Your task to perform on an android device: Search for Italian restaurants on Maps Image 0: 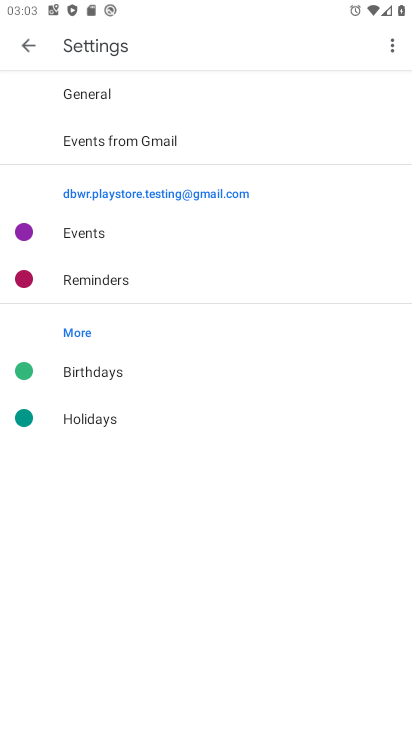
Step 0: press back button
Your task to perform on an android device: Search for Italian restaurants on Maps Image 1: 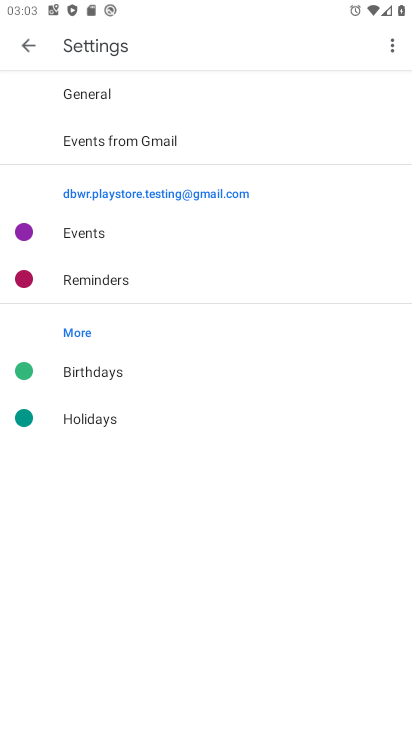
Step 1: press back button
Your task to perform on an android device: Search for Italian restaurants on Maps Image 2: 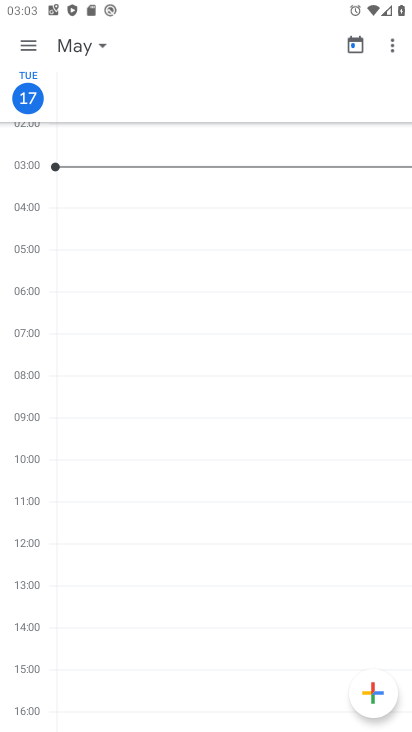
Step 2: press back button
Your task to perform on an android device: Search for Italian restaurants on Maps Image 3: 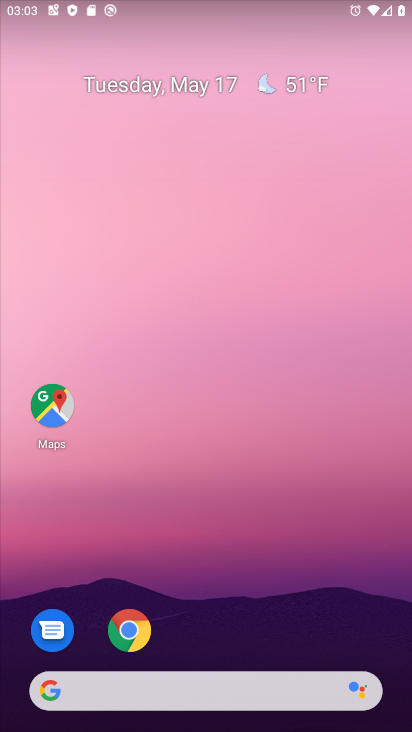
Step 3: click (42, 416)
Your task to perform on an android device: Search for Italian restaurants on Maps Image 4: 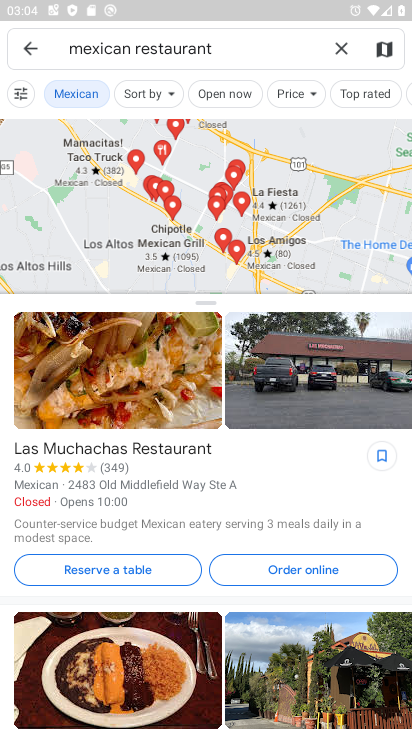
Step 4: click (350, 48)
Your task to perform on an android device: Search for Italian restaurants on Maps Image 5: 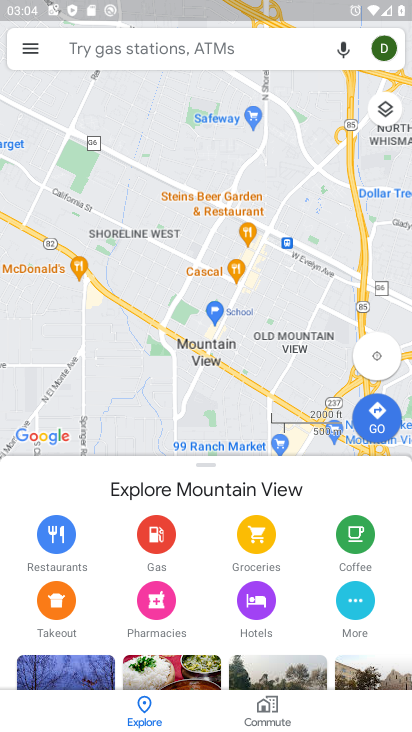
Step 5: click (94, 61)
Your task to perform on an android device: Search for Italian restaurants on Maps Image 6: 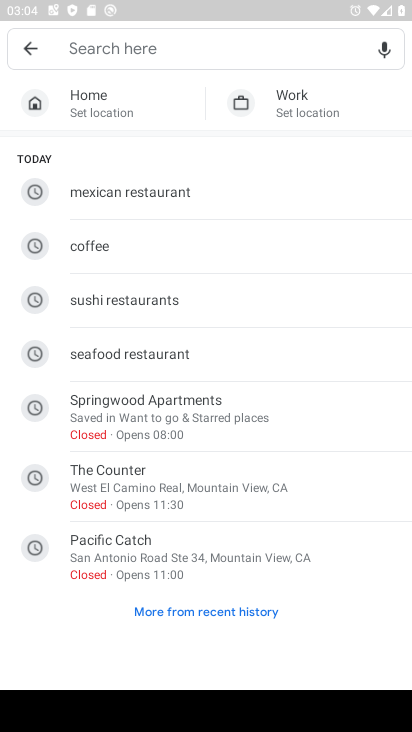
Step 6: click (94, 45)
Your task to perform on an android device: Search for Italian restaurants on Maps Image 7: 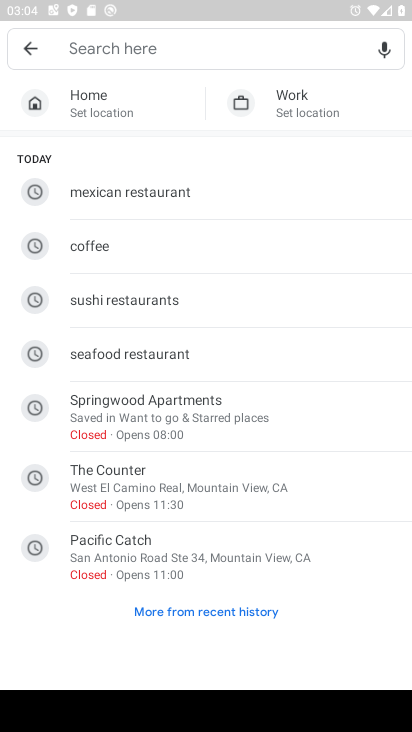
Step 7: type "italian restaurany"
Your task to perform on an android device: Search for Italian restaurants on Maps Image 8: 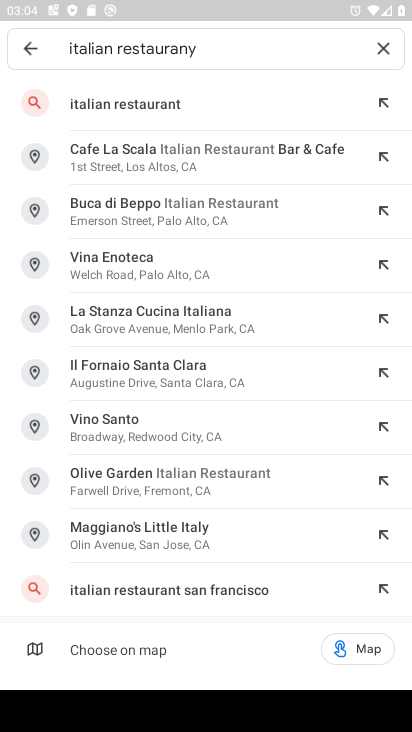
Step 8: click (143, 104)
Your task to perform on an android device: Search for Italian restaurants on Maps Image 9: 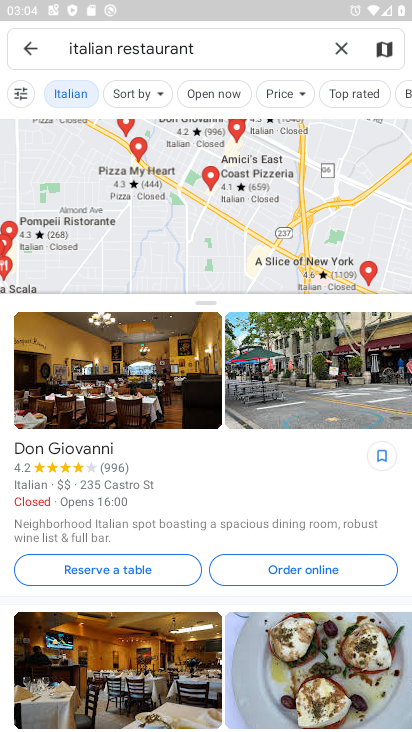
Step 9: task complete